Your task to perform on an android device: Go to Yahoo.com Image 0: 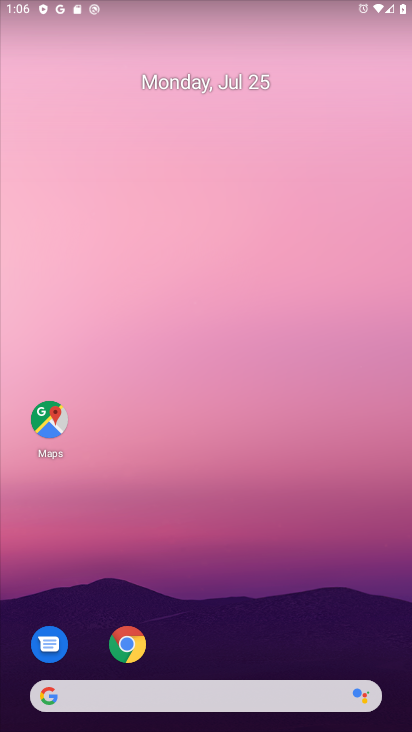
Step 0: click (111, 635)
Your task to perform on an android device: Go to Yahoo.com Image 1: 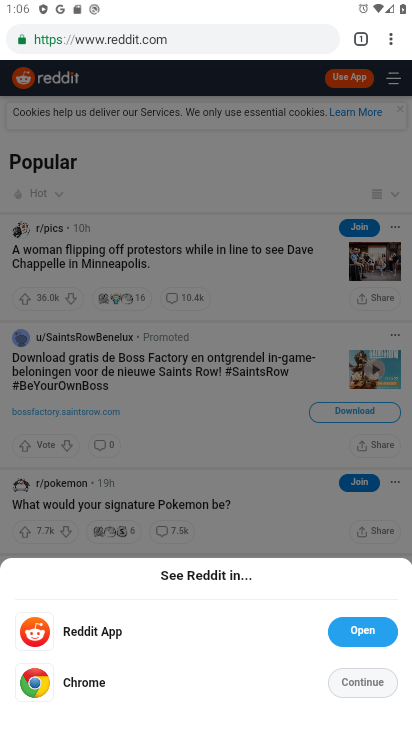
Step 1: click (187, 44)
Your task to perform on an android device: Go to Yahoo.com Image 2: 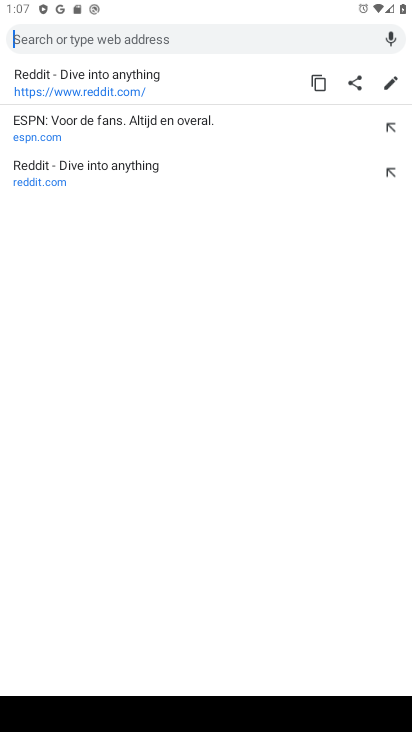
Step 2: type "yahoo.com"
Your task to perform on an android device: Go to Yahoo.com Image 3: 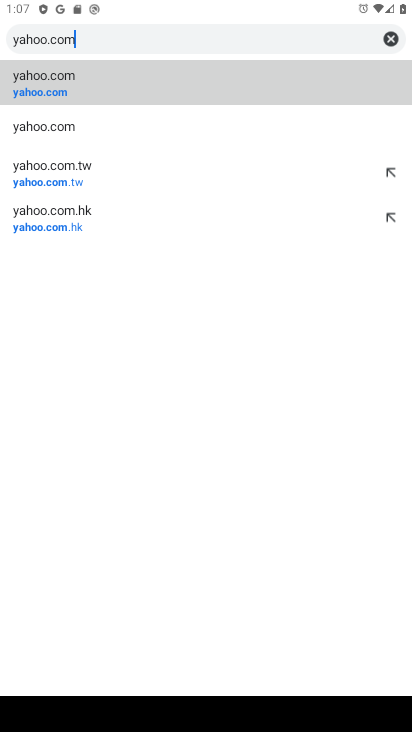
Step 3: click (188, 71)
Your task to perform on an android device: Go to Yahoo.com Image 4: 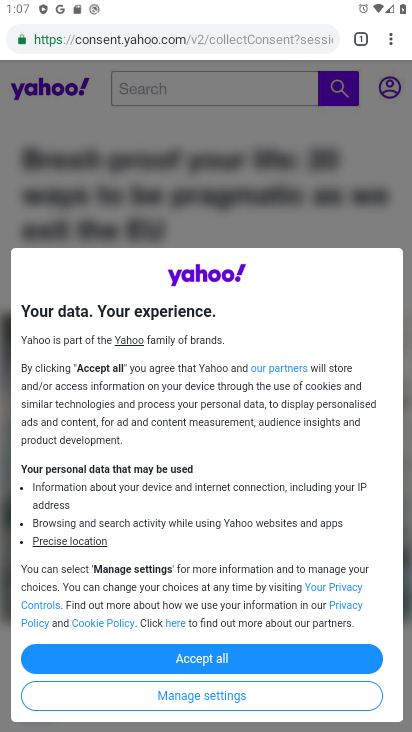
Step 4: task complete